Your task to perform on an android device: Open sound settings Image 0: 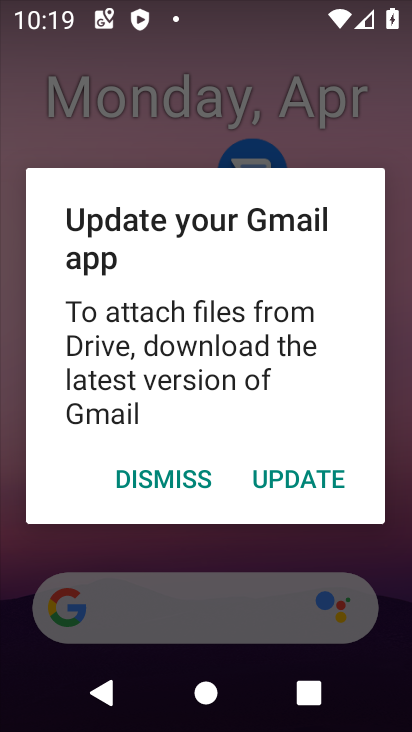
Step 0: press home button
Your task to perform on an android device: Open sound settings Image 1: 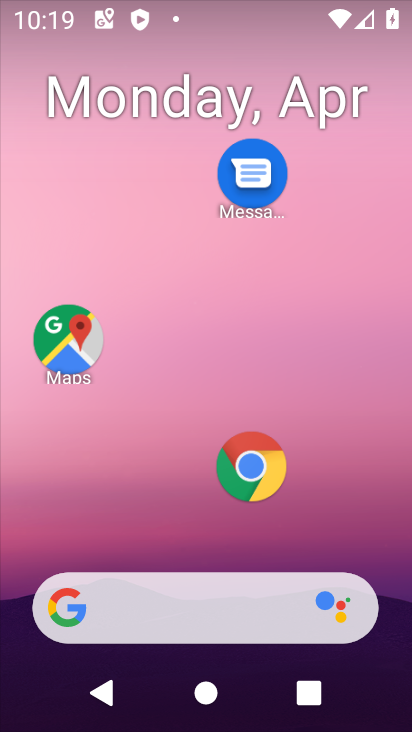
Step 1: drag from (169, 557) to (188, 166)
Your task to perform on an android device: Open sound settings Image 2: 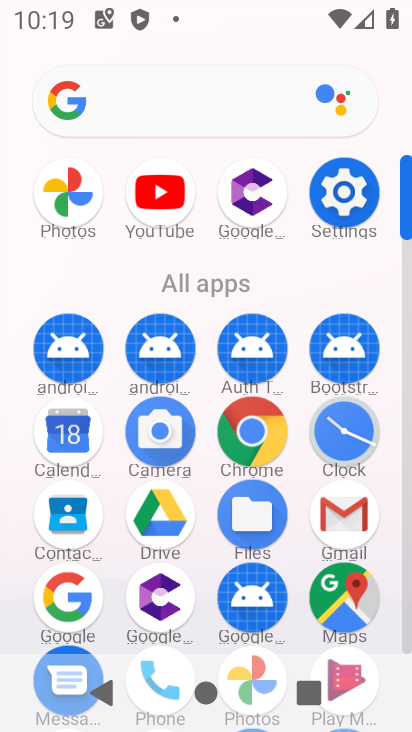
Step 2: click (335, 208)
Your task to perform on an android device: Open sound settings Image 3: 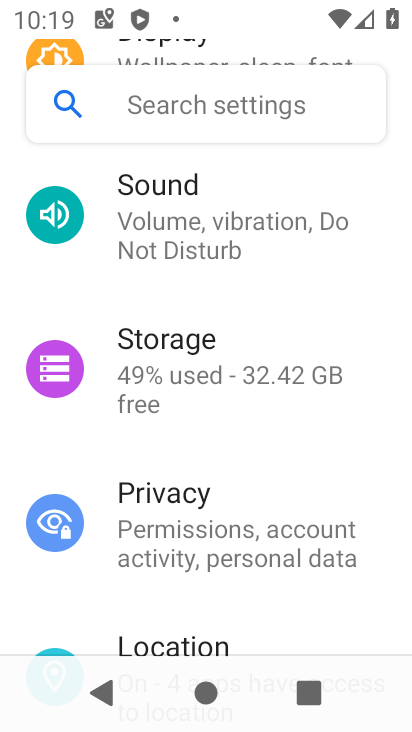
Step 3: click (235, 232)
Your task to perform on an android device: Open sound settings Image 4: 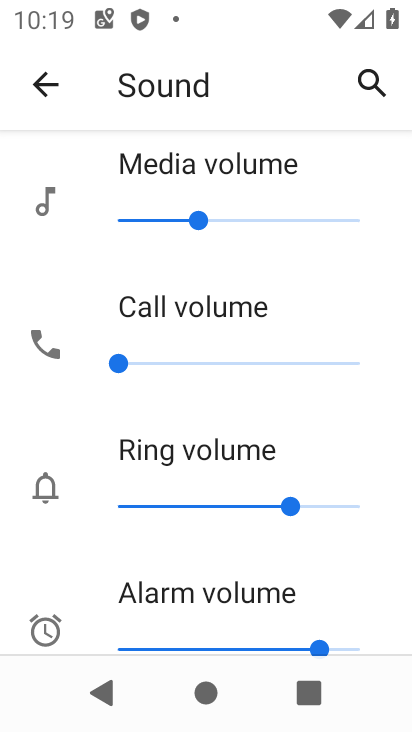
Step 4: task complete